Your task to perform on an android device: open chrome privacy settings Image 0: 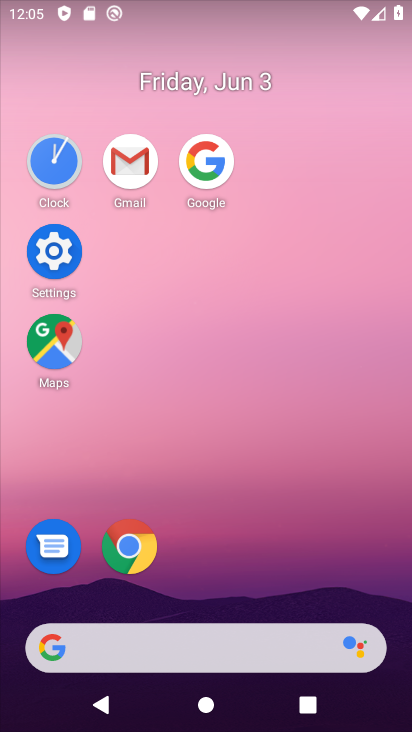
Step 0: click (136, 543)
Your task to perform on an android device: open chrome privacy settings Image 1: 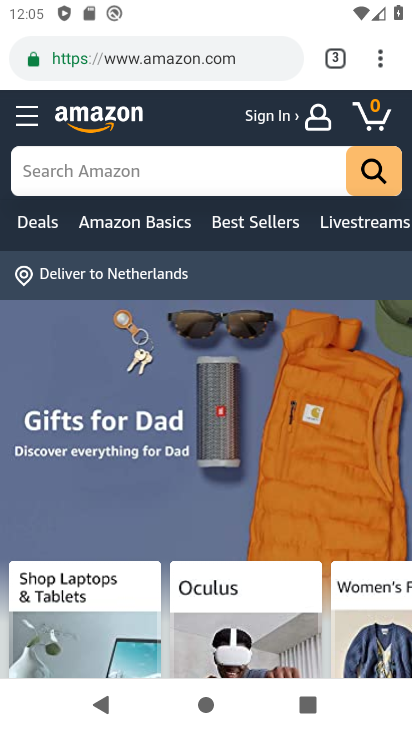
Step 1: click (384, 49)
Your task to perform on an android device: open chrome privacy settings Image 2: 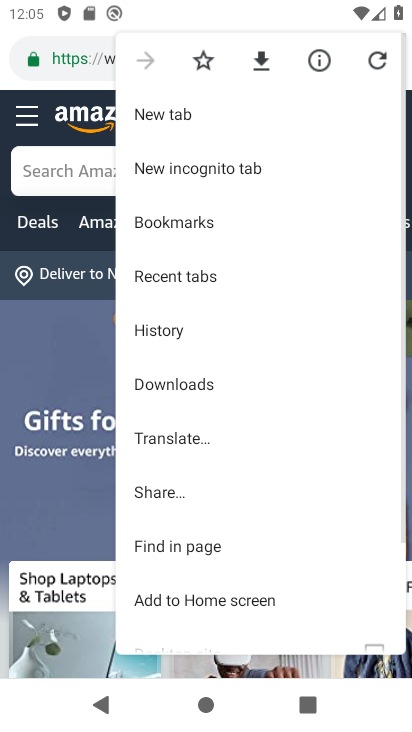
Step 2: drag from (233, 528) to (291, 217)
Your task to perform on an android device: open chrome privacy settings Image 3: 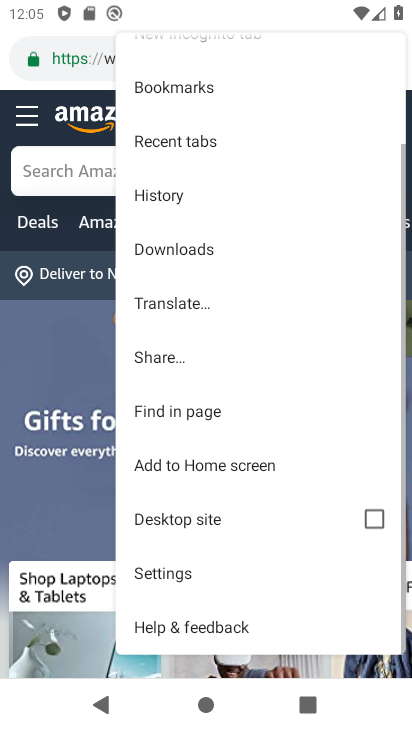
Step 3: click (189, 565)
Your task to perform on an android device: open chrome privacy settings Image 4: 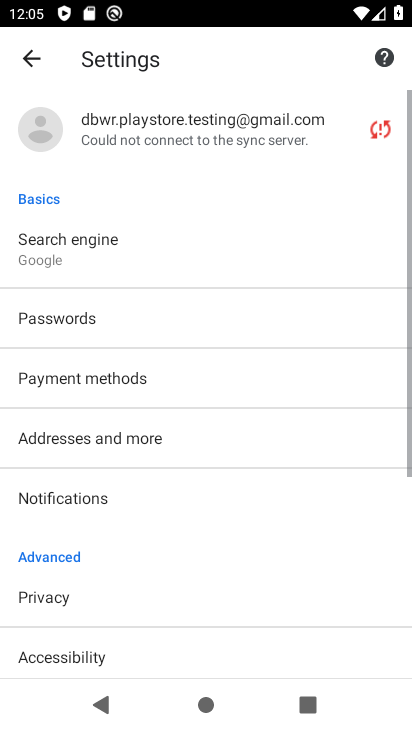
Step 4: drag from (186, 553) to (217, 143)
Your task to perform on an android device: open chrome privacy settings Image 5: 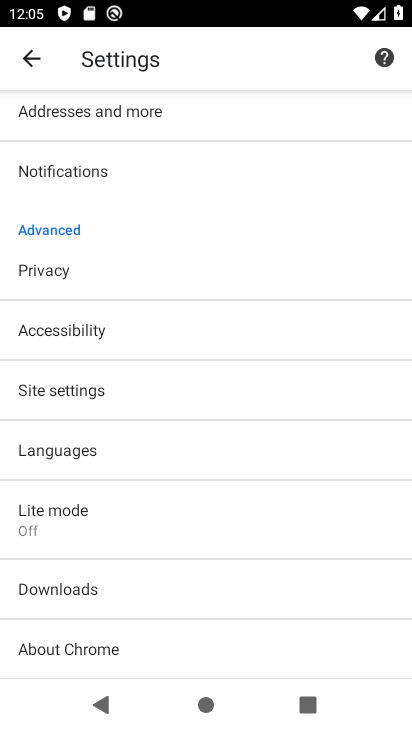
Step 5: drag from (145, 544) to (213, 142)
Your task to perform on an android device: open chrome privacy settings Image 6: 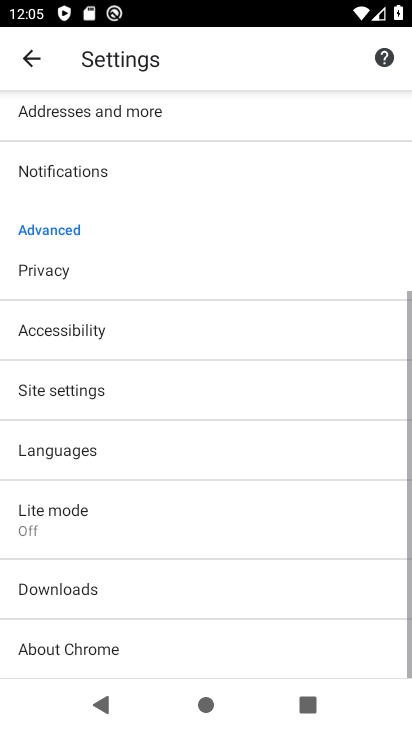
Step 6: click (144, 270)
Your task to perform on an android device: open chrome privacy settings Image 7: 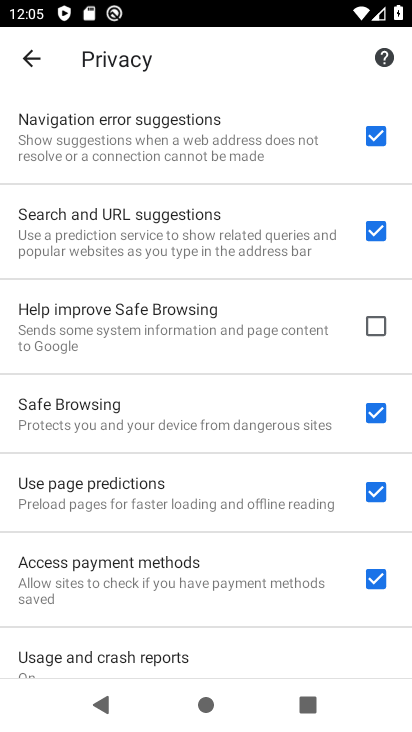
Step 7: task complete